Your task to perform on an android device: choose inbox layout in the gmail app Image 0: 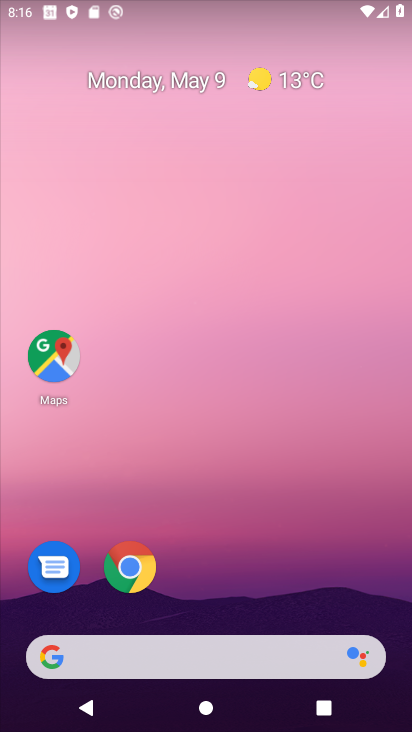
Step 0: drag from (335, 559) to (269, 31)
Your task to perform on an android device: choose inbox layout in the gmail app Image 1: 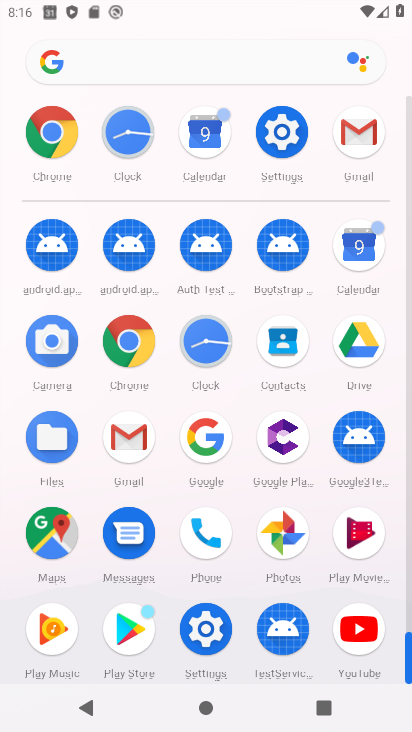
Step 1: click (354, 122)
Your task to perform on an android device: choose inbox layout in the gmail app Image 2: 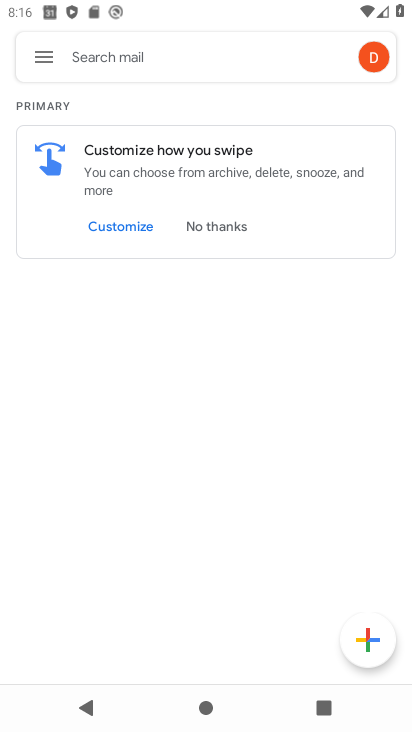
Step 2: click (210, 218)
Your task to perform on an android device: choose inbox layout in the gmail app Image 3: 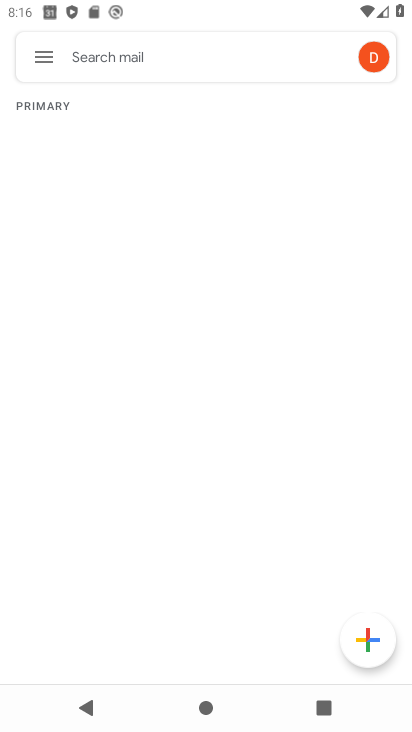
Step 3: click (41, 47)
Your task to perform on an android device: choose inbox layout in the gmail app Image 4: 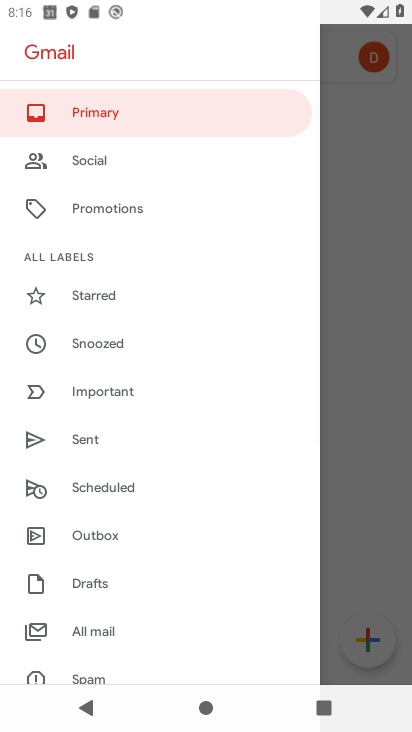
Step 4: drag from (172, 618) to (185, 249)
Your task to perform on an android device: choose inbox layout in the gmail app Image 5: 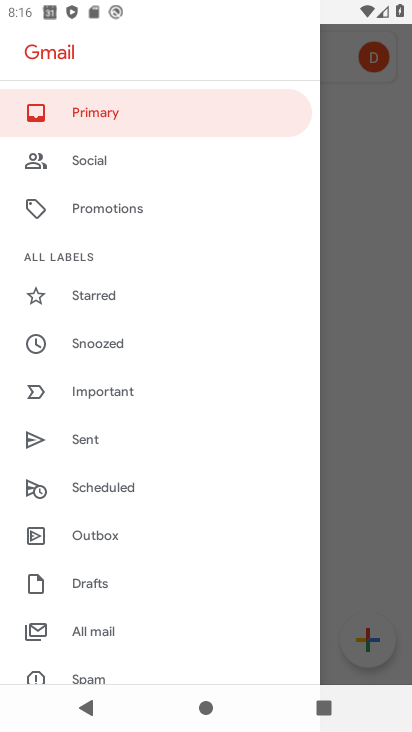
Step 5: drag from (127, 579) to (199, 320)
Your task to perform on an android device: choose inbox layout in the gmail app Image 6: 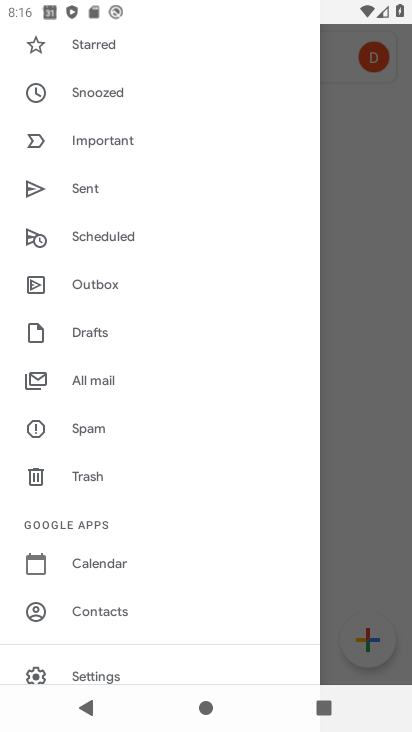
Step 6: click (117, 665)
Your task to perform on an android device: choose inbox layout in the gmail app Image 7: 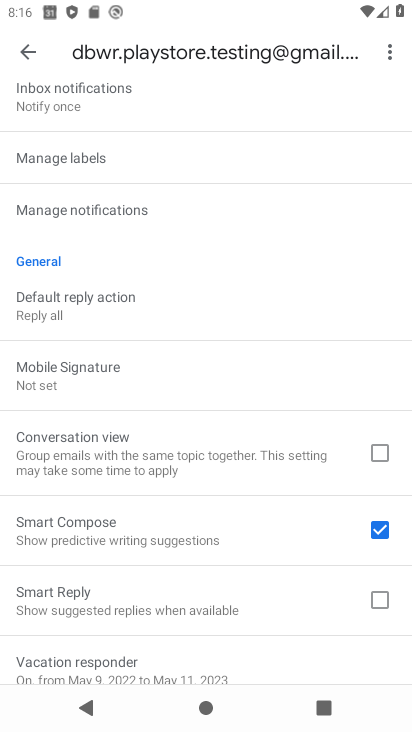
Step 7: drag from (177, 236) to (187, 625)
Your task to perform on an android device: choose inbox layout in the gmail app Image 8: 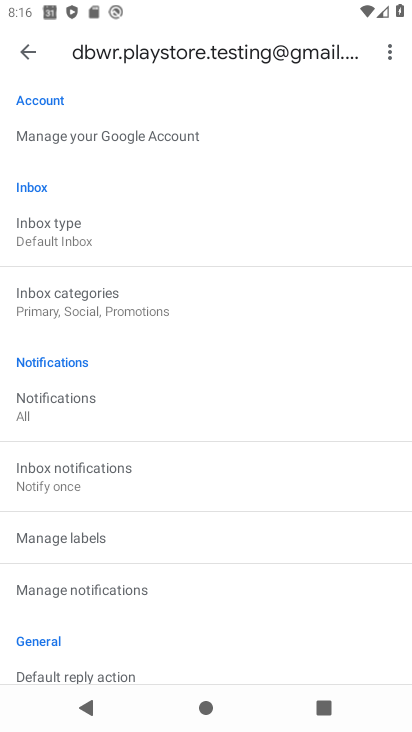
Step 8: click (77, 222)
Your task to perform on an android device: choose inbox layout in the gmail app Image 9: 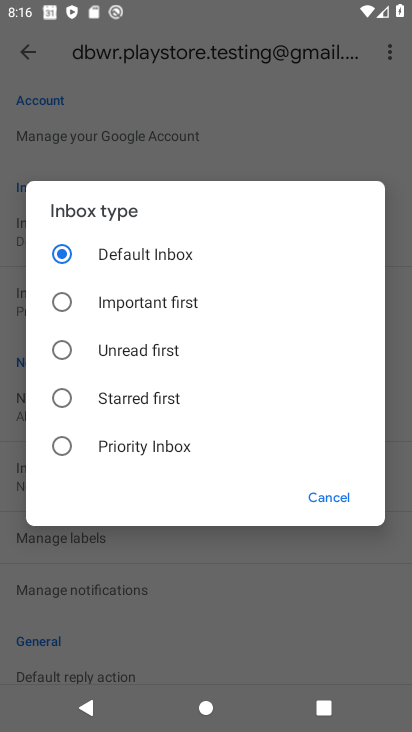
Step 9: click (56, 347)
Your task to perform on an android device: choose inbox layout in the gmail app Image 10: 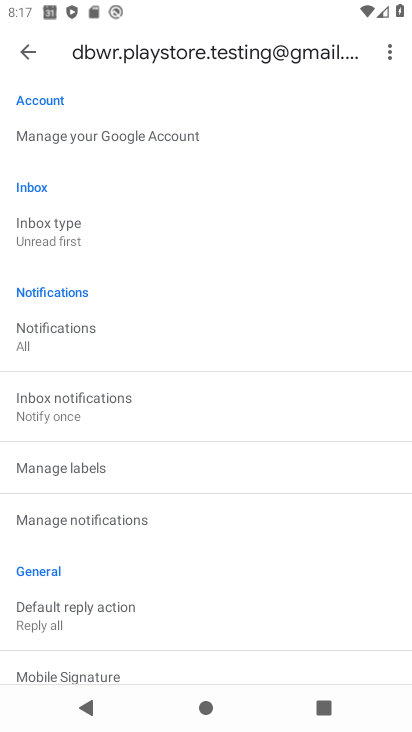
Step 10: task complete